Your task to perform on an android device: Open calendar and show me the first week of next month Image 0: 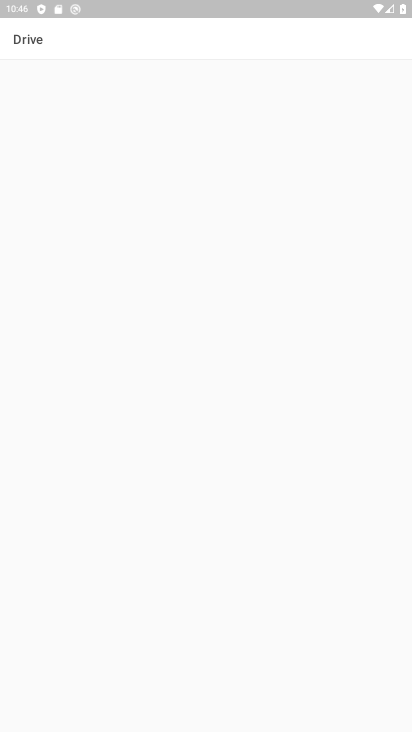
Step 0: press home button
Your task to perform on an android device: Open calendar and show me the first week of next month Image 1: 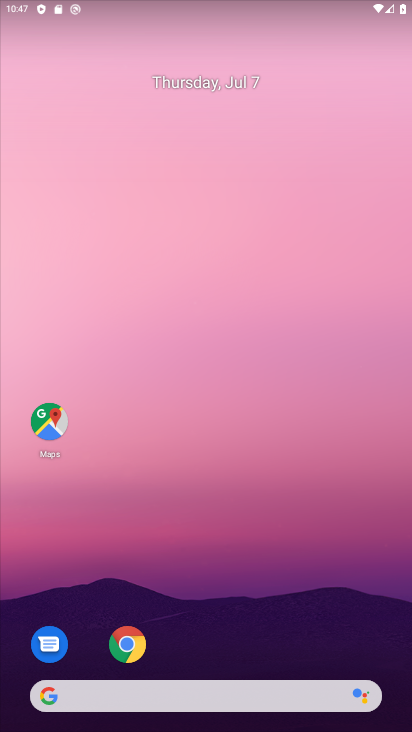
Step 1: drag from (214, 711) to (216, 87)
Your task to perform on an android device: Open calendar and show me the first week of next month Image 2: 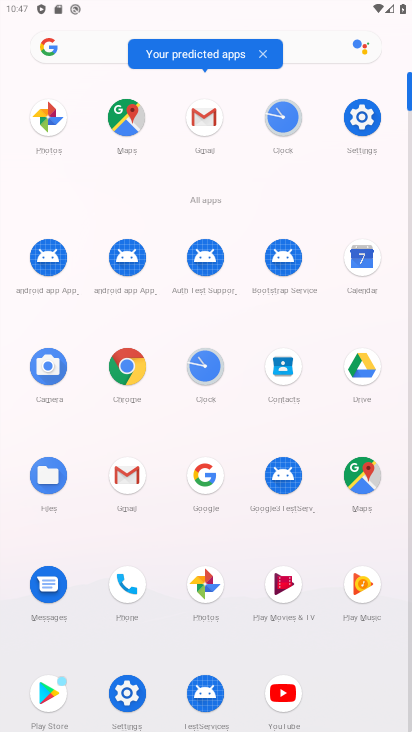
Step 2: click (364, 254)
Your task to perform on an android device: Open calendar and show me the first week of next month Image 3: 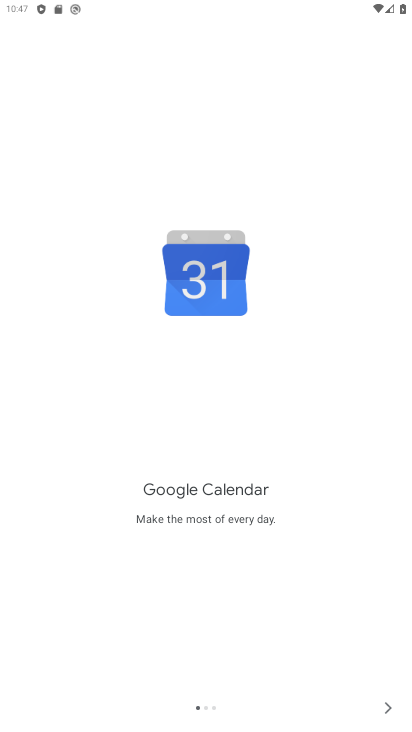
Step 3: click (387, 708)
Your task to perform on an android device: Open calendar and show me the first week of next month Image 4: 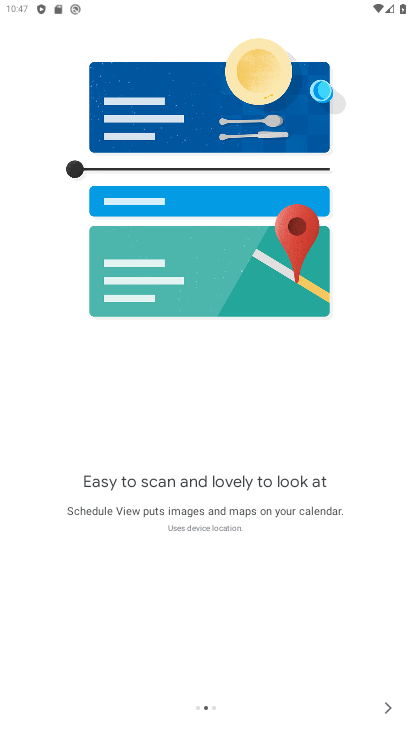
Step 4: click (390, 706)
Your task to perform on an android device: Open calendar and show me the first week of next month Image 5: 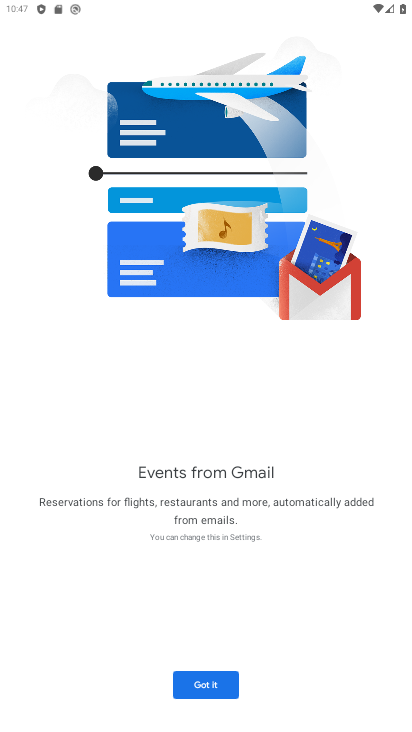
Step 5: click (217, 681)
Your task to perform on an android device: Open calendar and show me the first week of next month Image 6: 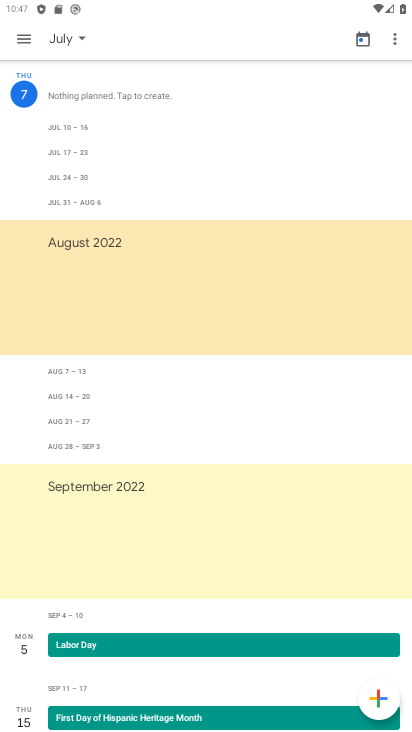
Step 6: click (66, 31)
Your task to perform on an android device: Open calendar and show me the first week of next month Image 7: 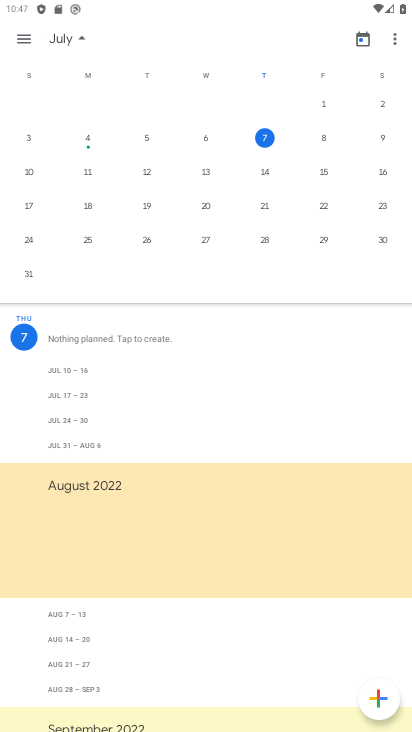
Step 7: drag from (357, 175) to (5, 184)
Your task to perform on an android device: Open calendar and show me the first week of next month Image 8: 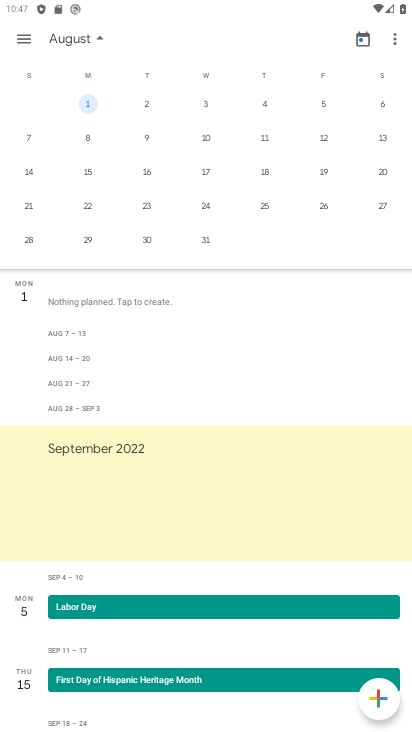
Step 8: click (90, 204)
Your task to perform on an android device: Open calendar and show me the first week of next month Image 9: 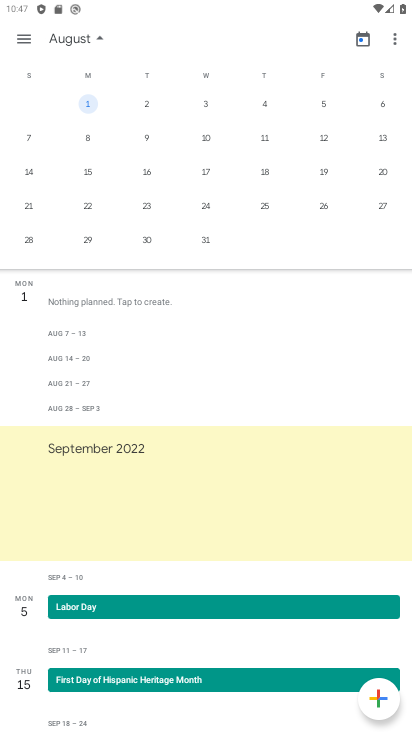
Step 9: click (89, 200)
Your task to perform on an android device: Open calendar and show me the first week of next month Image 10: 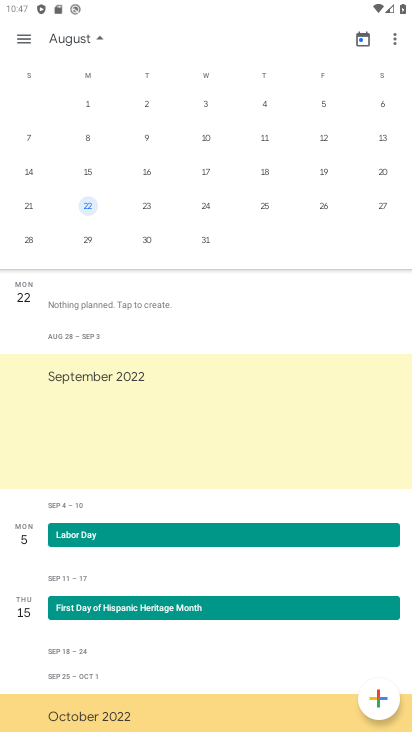
Step 10: click (22, 40)
Your task to perform on an android device: Open calendar and show me the first week of next month Image 11: 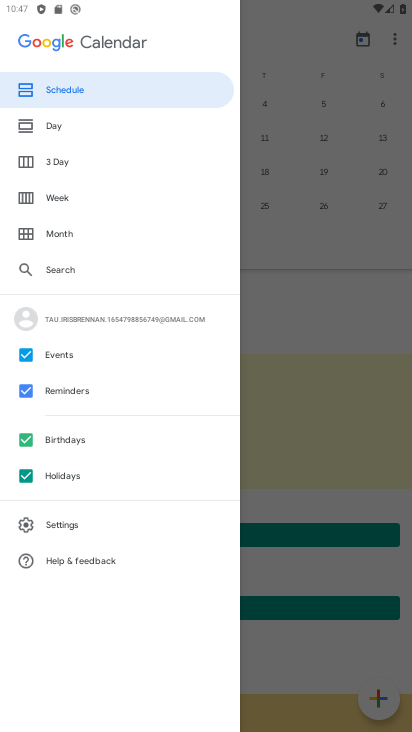
Step 11: click (64, 193)
Your task to perform on an android device: Open calendar and show me the first week of next month Image 12: 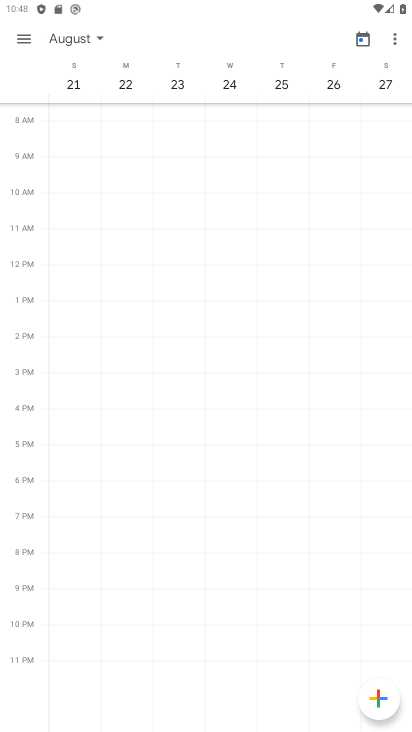
Step 12: task complete